Your task to perform on an android device: Go to network settings Image 0: 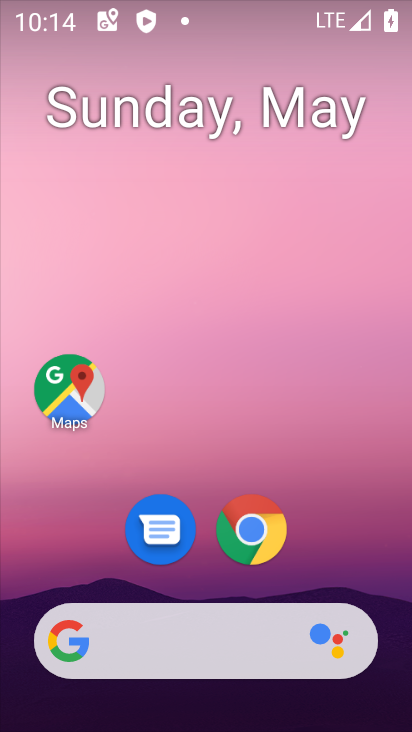
Step 0: drag from (348, 555) to (348, 29)
Your task to perform on an android device: Go to network settings Image 1: 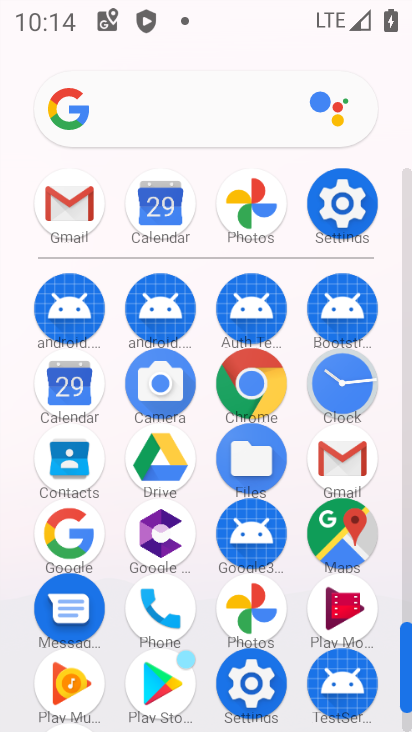
Step 1: click (344, 219)
Your task to perform on an android device: Go to network settings Image 2: 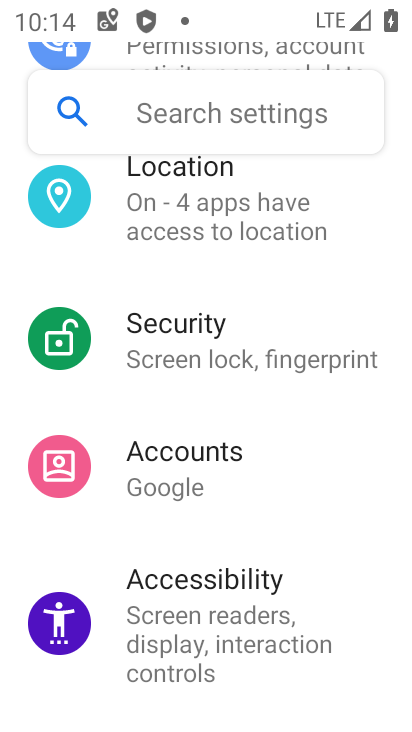
Step 2: drag from (245, 254) to (401, 640)
Your task to perform on an android device: Go to network settings Image 3: 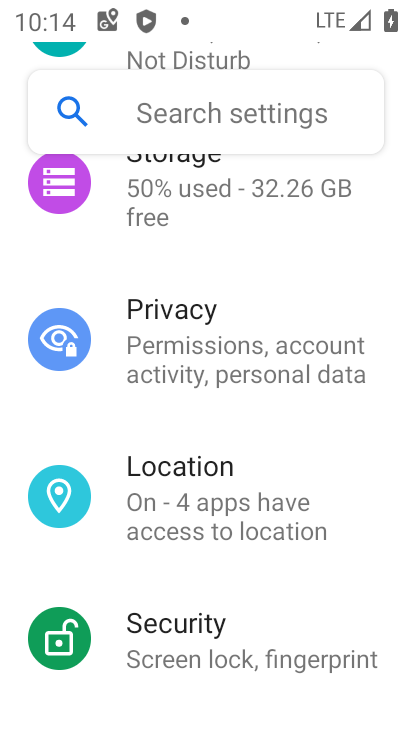
Step 3: drag from (241, 213) to (366, 542)
Your task to perform on an android device: Go to network settings Image 4: 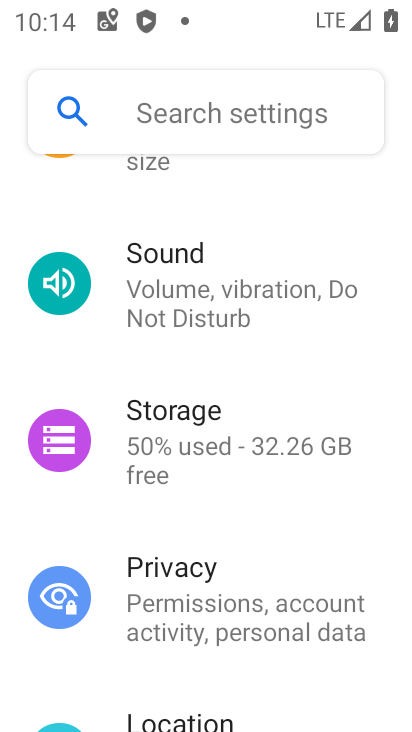
Step 4: drag from (214, 280) to (328, 627)
Your task to perform on an android device: Go to network settings Image 5: 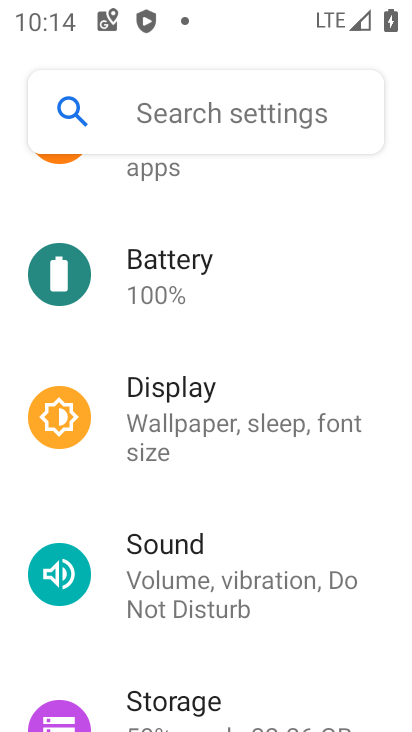
Step 5: drag from (220, 256) to (248, 399)
Your task to perform on an android device: Go to network settings Image 6: 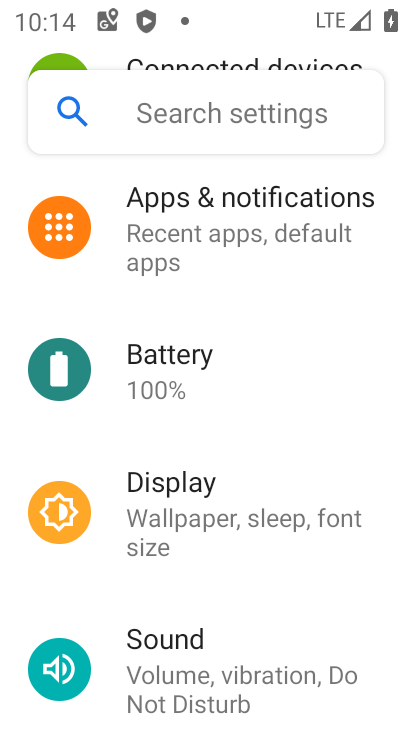
Step 6: drag from (219, 227) to (209, 724)
Your task to perform on an android device: Go to network settings Image 7: 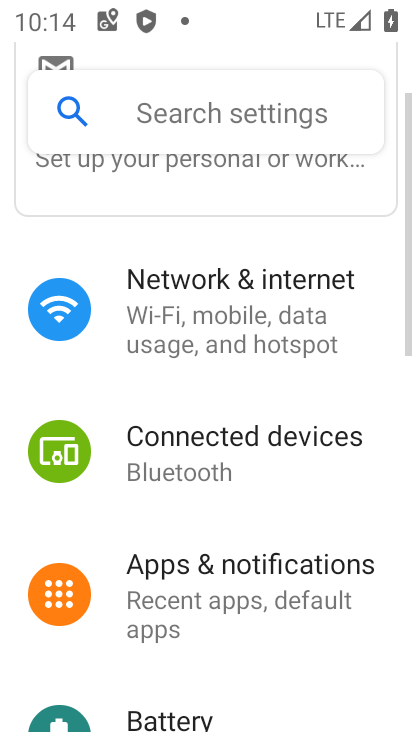
Step 7: click (213, 307)
Your task to perform on an android device: Go to network settings Image 8: 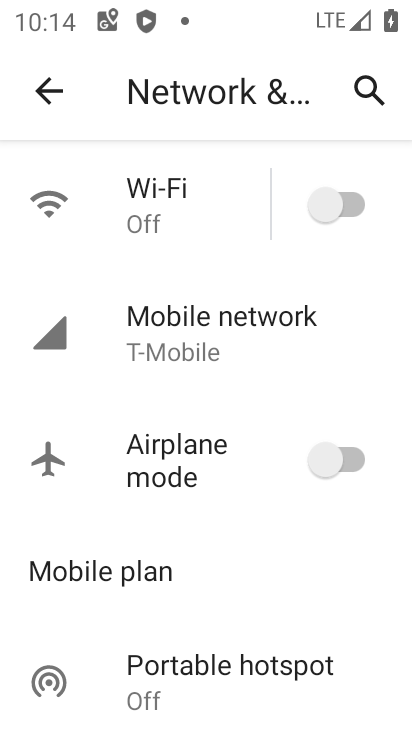
Step 8: task complete